Your task to perform on an android device: Is it going to rain tomorrow? Image 0: 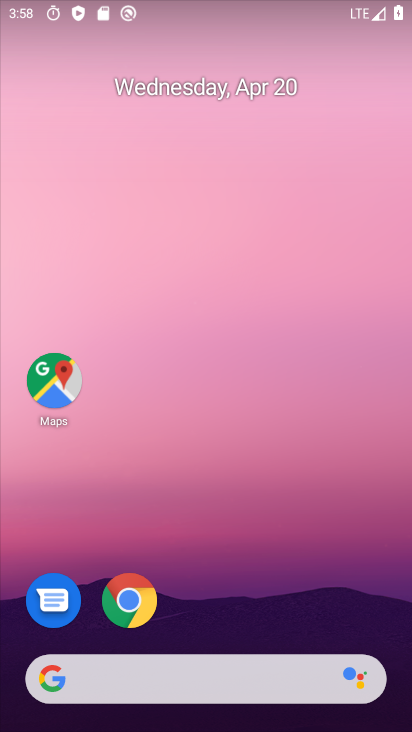
Step 0: drag from (263, 605) to (245, 115)
Your task to perform on an android device: Is it going to rain tomorrow? Image 1: 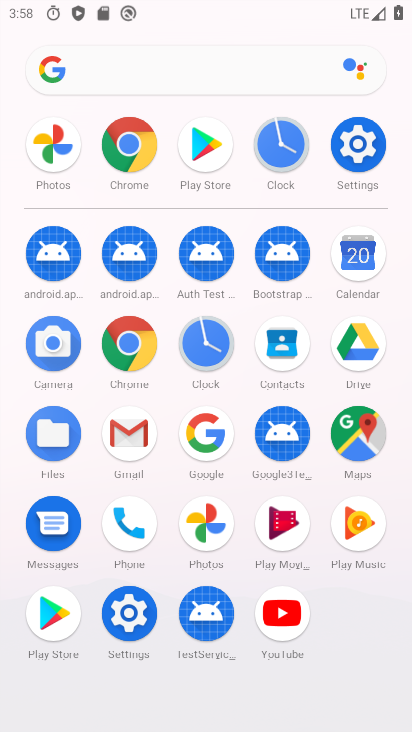
Step 1: click (121, 148)
Your task to perform on an android device: Is it going to rain tomorrow? Image 2: 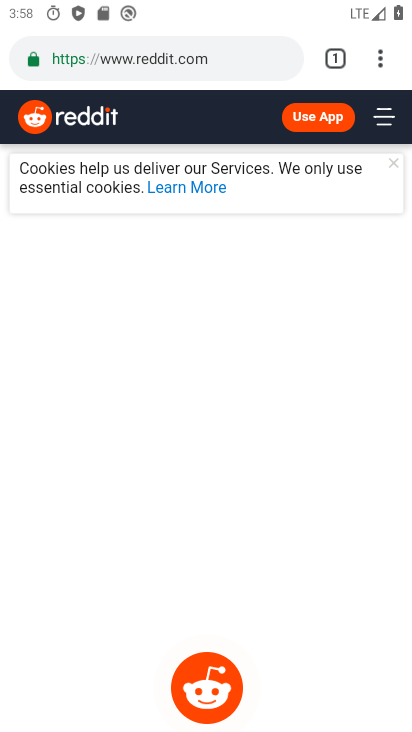
Step 2: click (200, 54)
Your task to perform on an android device: Is it going to rain tomorrow? Image 3: 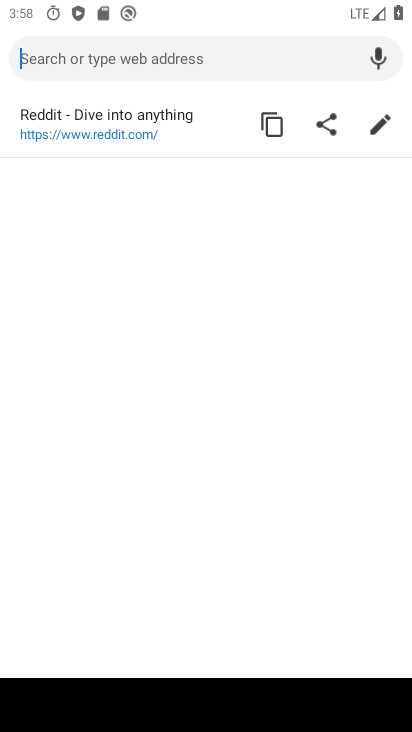
Step 3: type "weather"
Your task to perform on an android device: Is it going to rain tomorrow? Image 4: 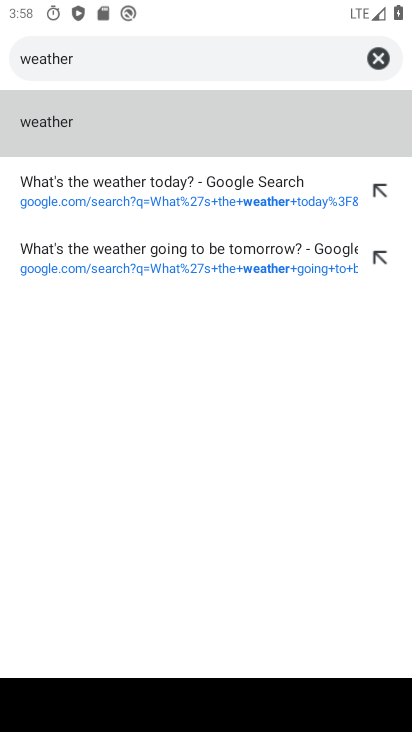
Step 4: click (47, 113)
Your task to perform on an android device: Is it going to rain tomorrow? Image 5: 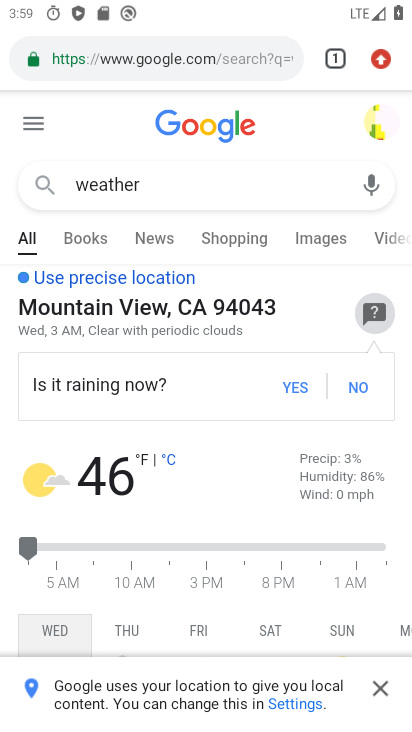
Step 5: click (132, 636)
Your task to perform on an android device: Is it going to rain tomorrow? Image 6: 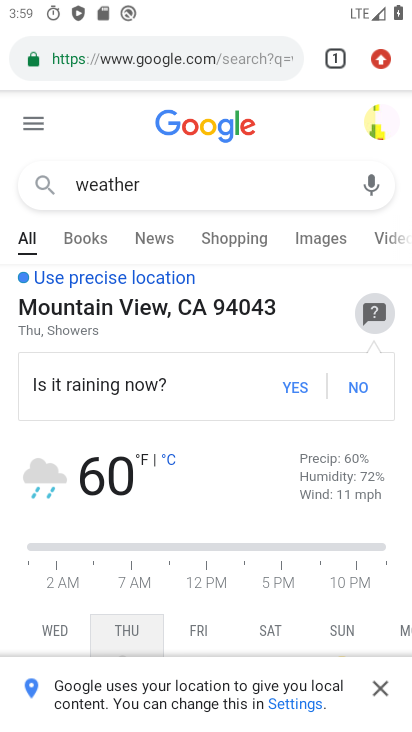
Step 6: task complete